Your task to perform on an android device: clear all cookies in the chrome app Image 0: 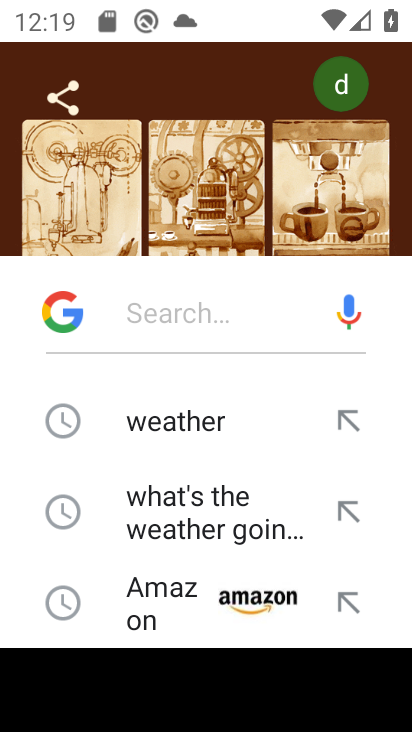
Step 0: press home button
Your task to perform on an android device: clear all cookies in the chrome app Image 1: 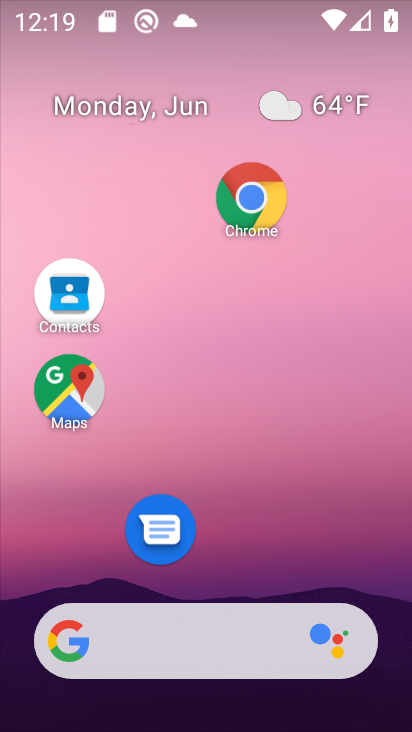
Step 1: click (250, 189)
Your task to perform on an android device: clear all cookies in the chrome app Image 2: 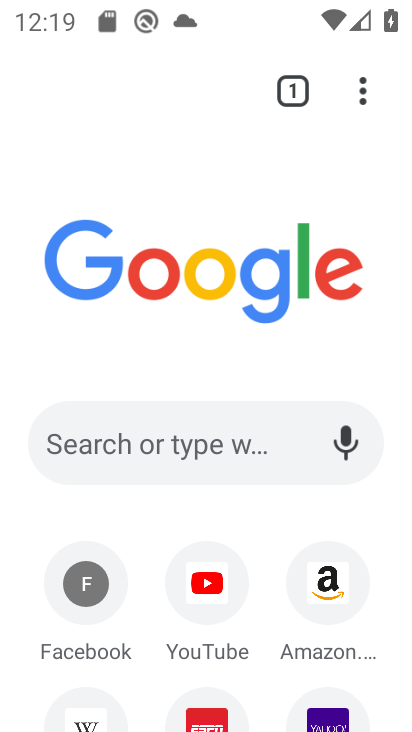
Step 2: click (364, 87)
Your task to perform on an android device: clear all cookies in the chrome app Image 3: 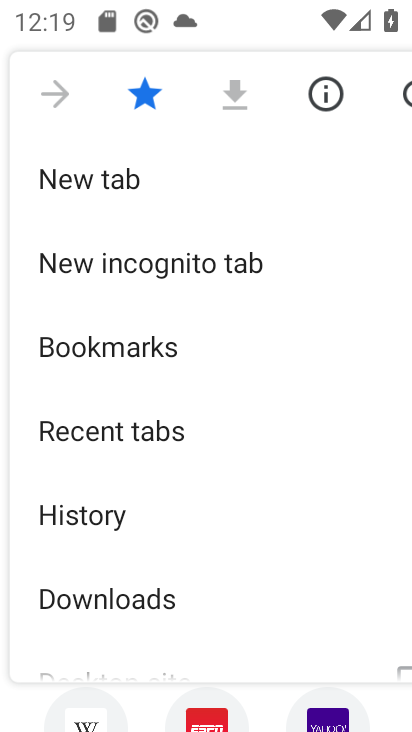
Step 3: click (104, 525)
Your task to perform on an android device: clear all cookies in the chrome app Image 4: 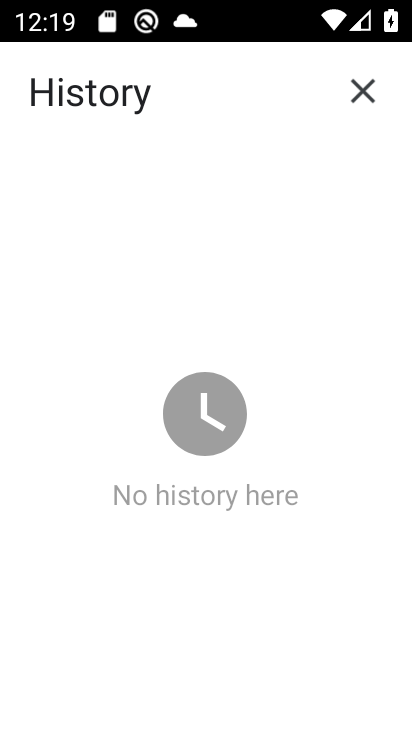
Step 4: task complete